Your task to perform on an android device: change alarm snooze length Image 0: 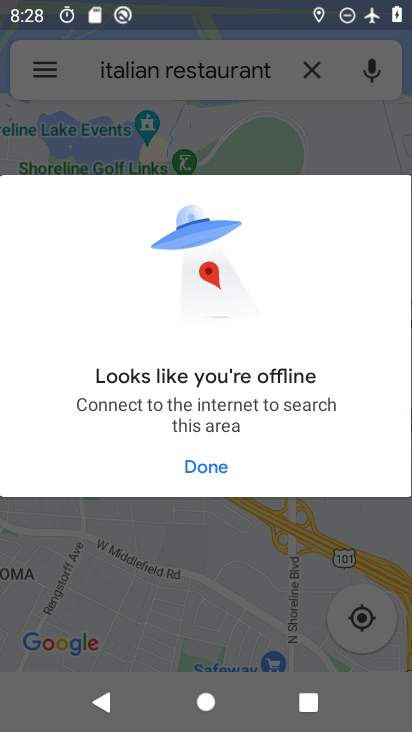
Step 0: press home button
Your task to perform on an android device: change alarm snooze length Image 1: 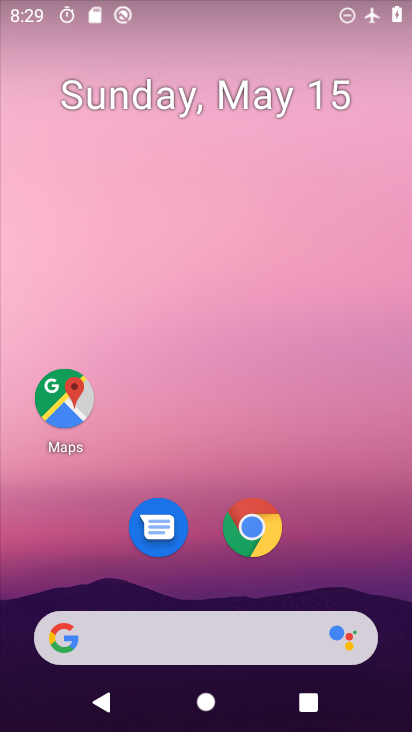
Step 1: drag from (203, 591) to (232, 140)
Your task to perform on an android device: change alarm snooze length Image 2: 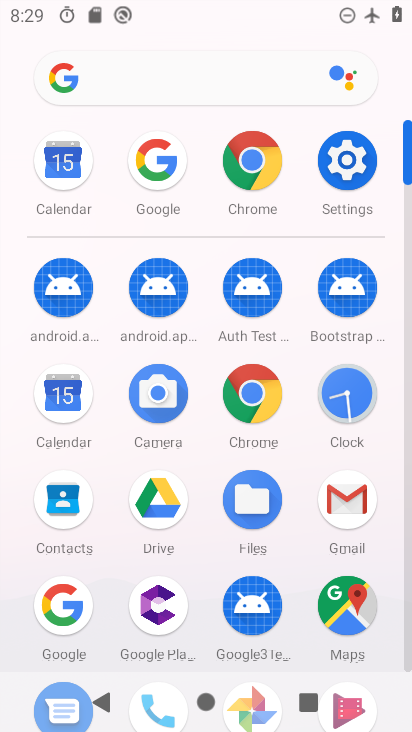
Step 2: click (330, 403)
Your task to perform on an android device: change alarm snooze length Image 3: 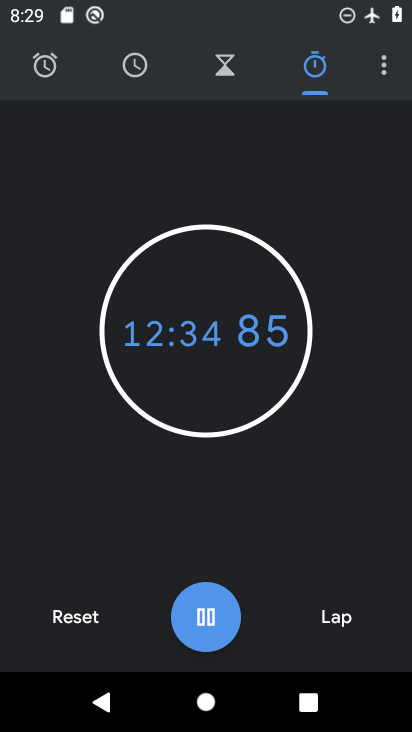
Step 3: click (378, 59)
Your task to perform on an android device: change alarm snooze length Image 4: 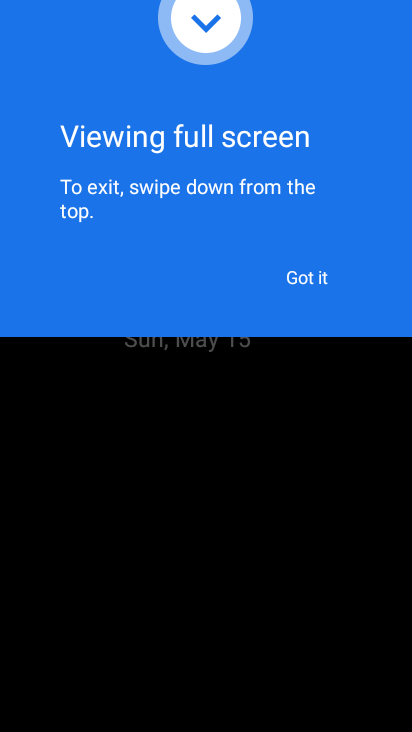
Step 4: press back button
Your task to perform on an android device: change alarm snooze length Image 5: 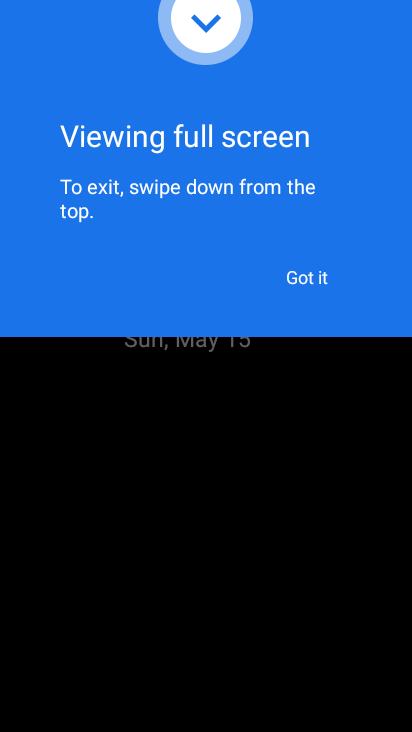
Step 5: click (266, 272)
Your task to perform on an android device: change alarm snooze length Image 6: 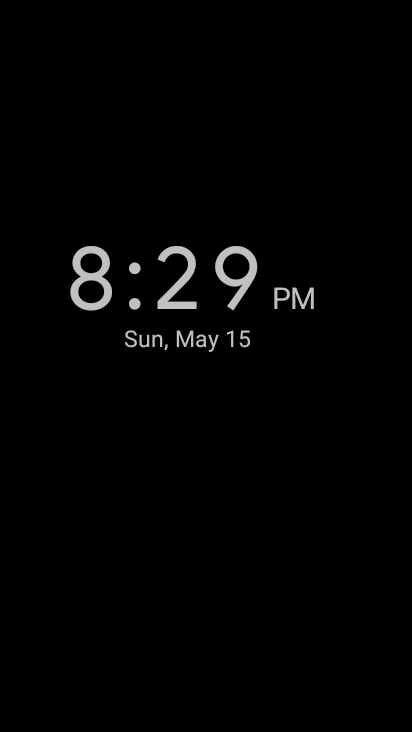
Step 6: press back button
Your task to perform on an android device: change alarm snooze length Image 7: 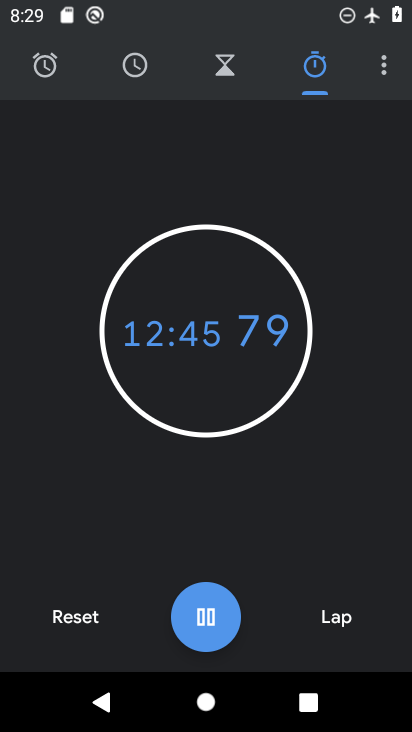
Step 7: click (372, 59)
Your task to perform on an android device: change alarm snooze length Image 8: 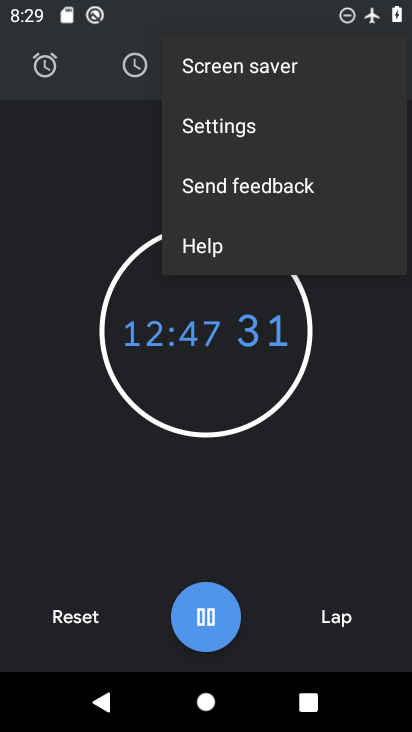
Step 8: click (292, 136)
Your task to perform on an android device: change alarm snooze length Image 9: 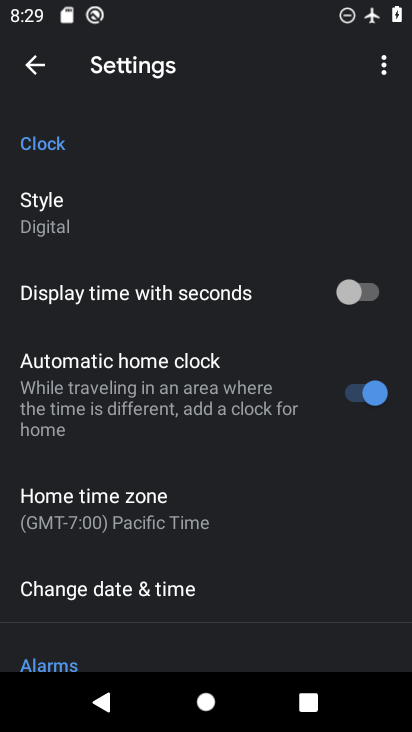
Step 9: drag from (194, 561) to (256, 309)
Your task to perform on an android device: change alarm snooze length Image 10: 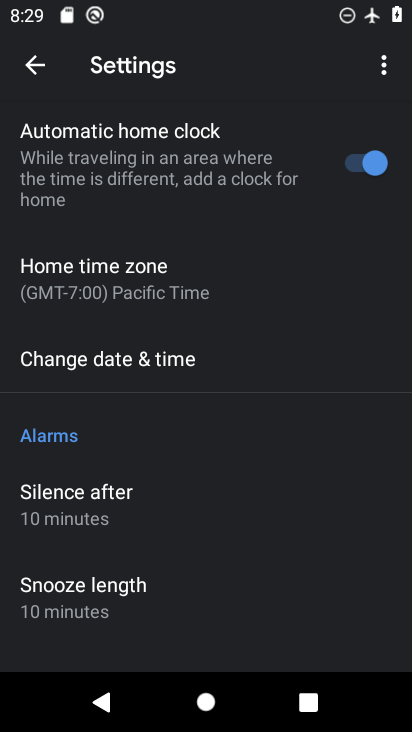
Step 10: click (151, 593)
Your task to perform on an android device: change alarm snooze length Image 11: 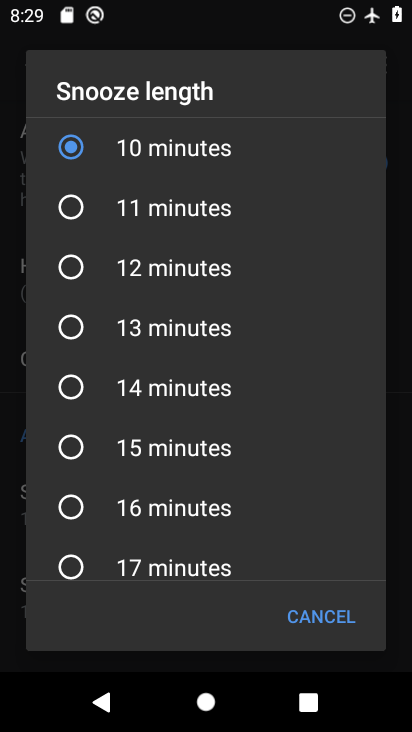
Step 11: click (161, 321)
Your task to perform on an android device: change alarm snooze length Image 12: 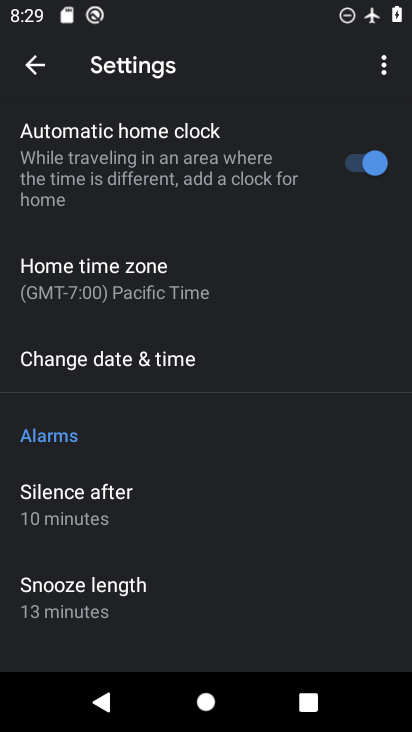
Step 12: task complete